Your task to perform on an android device: turn off smart reply in the gmail app Image 0: 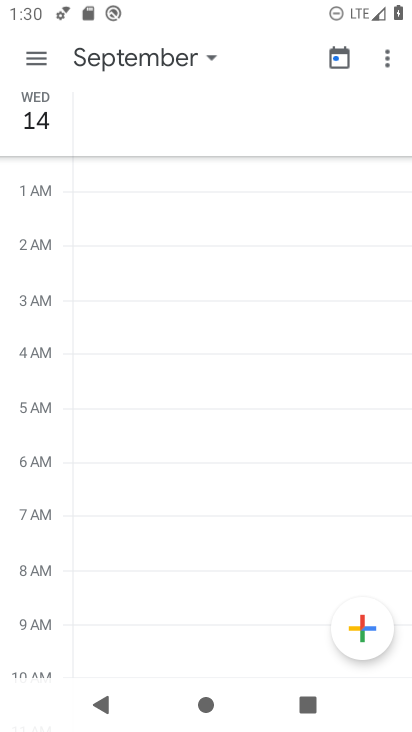
Step 0: press home button
Your task to perform on an android device: turn off smart reply in the gmail app Image 1: 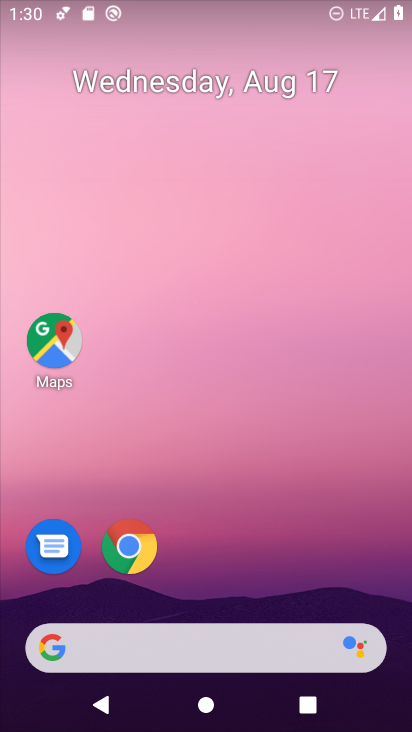
Step 1: drag from (220, 573) to (216, 139)
Your task to perform on an android device: turn off smart reply in the gmail app Image 2: 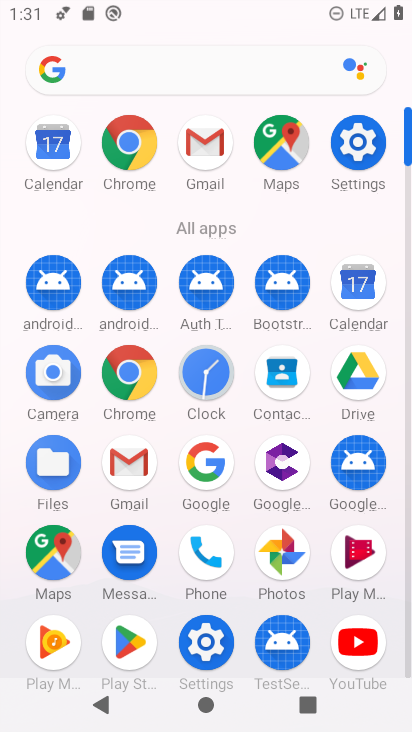
Step 2: click (200, 144)
Your task to perform on an android device: turn off smart reply in the gmail app Image 3: 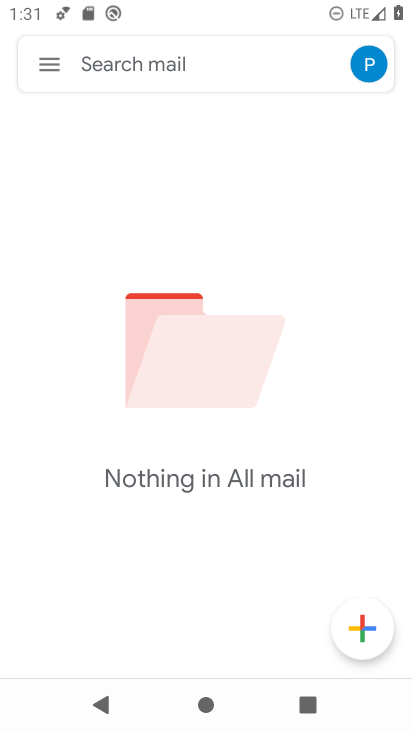
Step 3: click (42, 61)
Your task to perform on an android device: turn off smart reply in the gmail app Image 4: 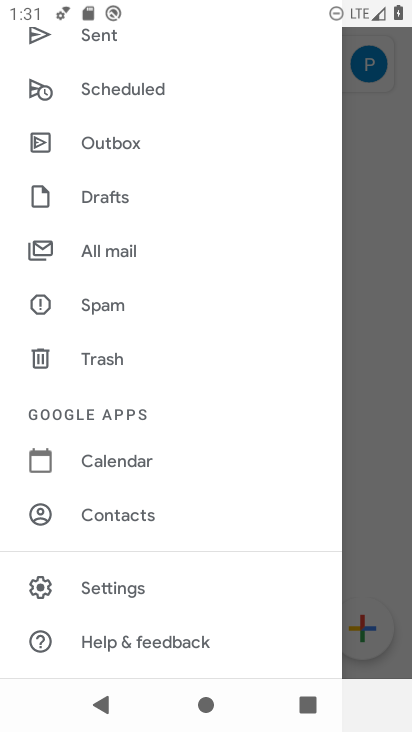
Step 4: click (115, 585)
Your task to perform on an android device: turn off smart reply in the gmail app Image 5: 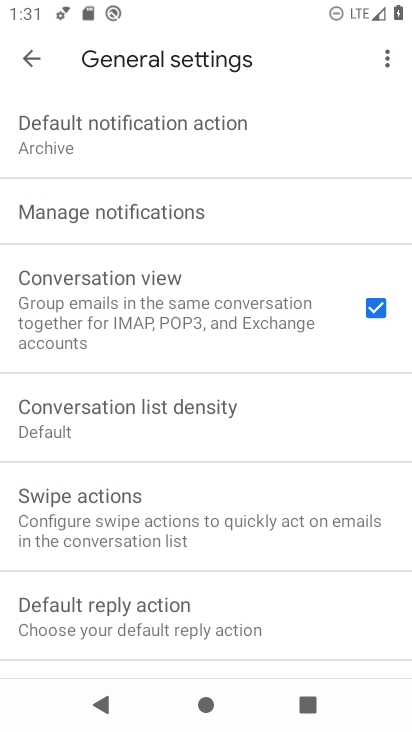
Step 5: click (35, 51)
Your task to perform on an android device: turn off smart reply in the gmail app Image 6: 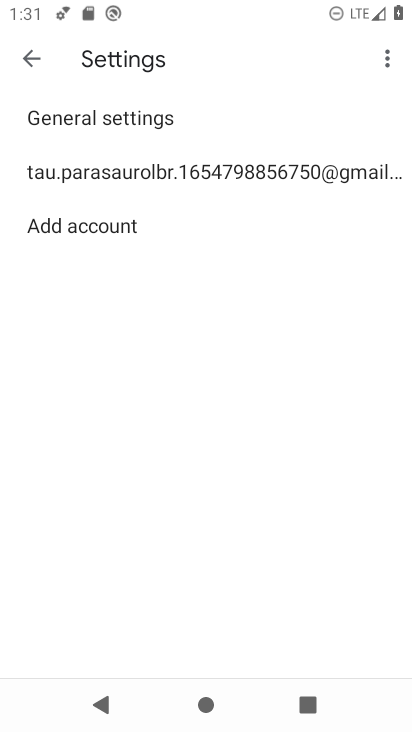
Step 6: click (100, 166)
Your task to perform on an android device: turn off smart reply in the gmail app Image 7: 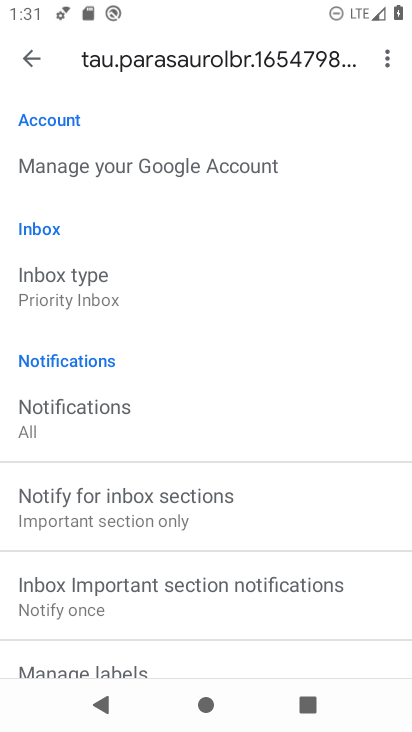
Step 7: drag from (200, 540) to (193, 135)
Your task to perform on an android device: turn off smart reply in the gmail app Image 8: 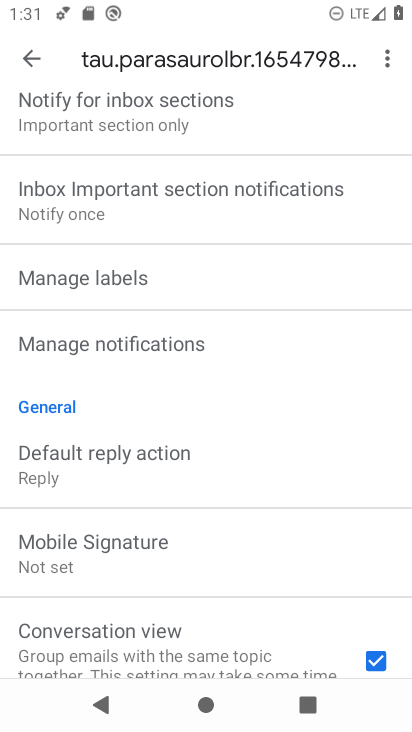
Step 8: drag from (206, 568) to (215, 257)
Your task to perform on an android device: turn off smart reply in the gmail app Image 9: 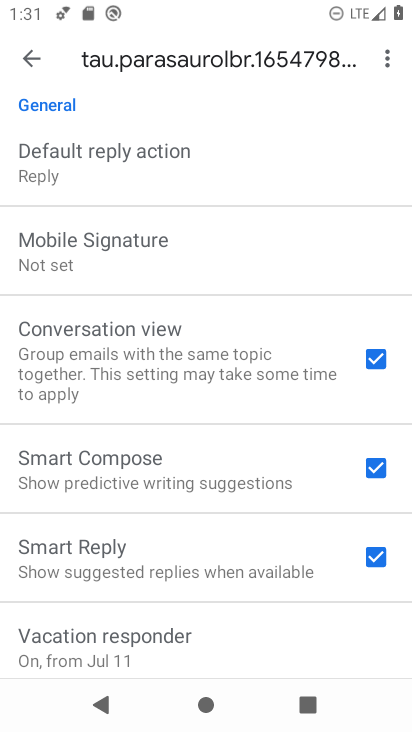
Step 9: click (373, 556)
Your task to perform on an android device: turn off smart reply in the gmail app Image 10: 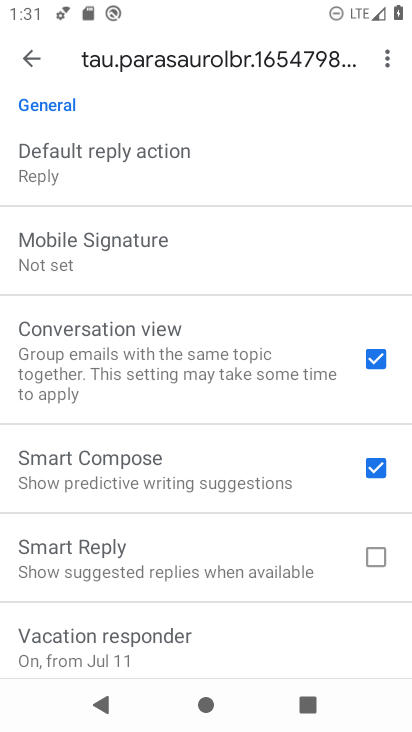
Step 10: task complete